Your task to perform on an android device: turn pop-ups on in chrome Image 0: 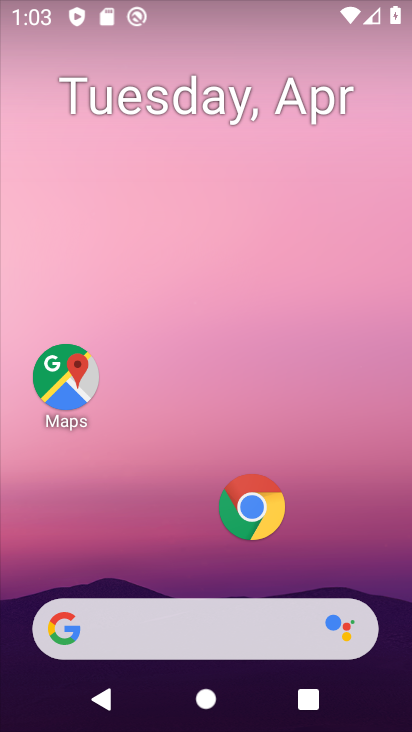
Step 0: click (252, 515)
Your task to perform on an android device: turn pop-ups on in chrome Image 1: 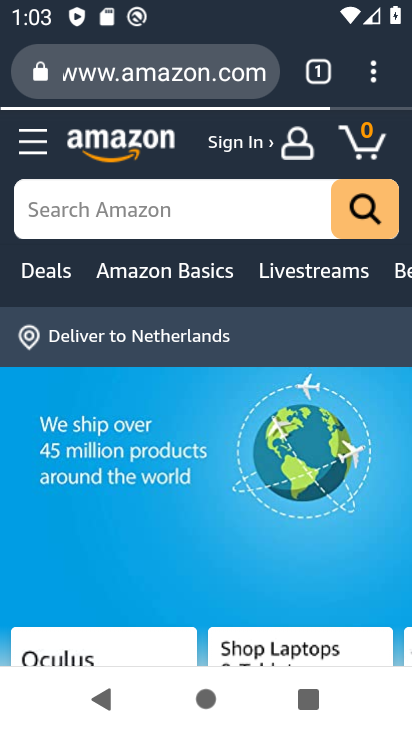
Step 1: click (370, 76)
Your task to perform on an android device: turn pop-ups on in chrome Image 2: 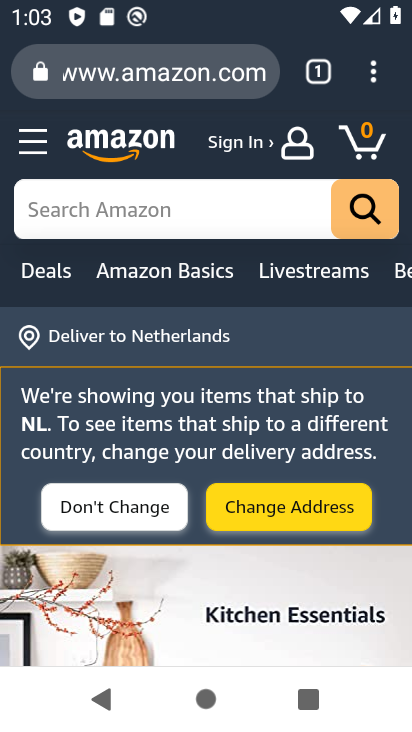
Step 2: click (375, 68)
Your task to perform on an android device: turn pop-ups on in chrome Image 3: 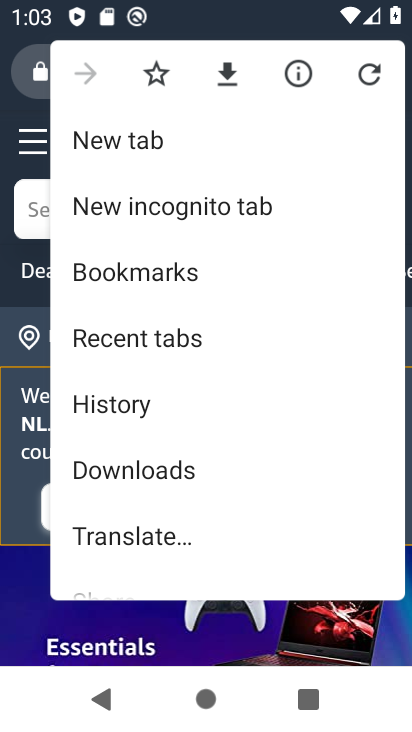
Step 3: drag from (143, 524) to (193, 153)
Your task to perform on an android device: turn pop-ups on in chrome Image 4: 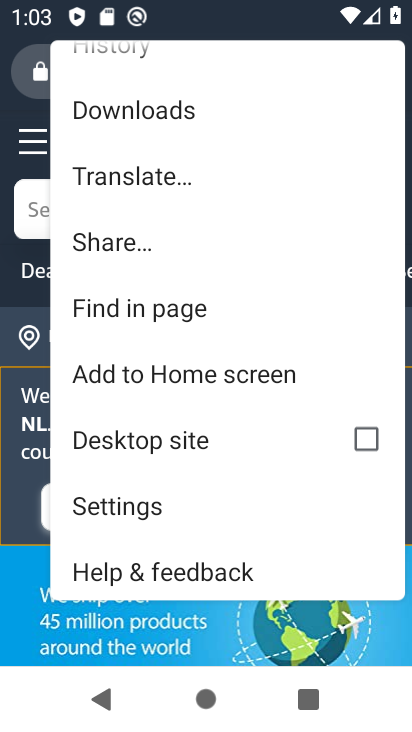
Step 4: click (155, 506)
Your task to perform on an android device: turn pop-ups on in chrome Image 5: 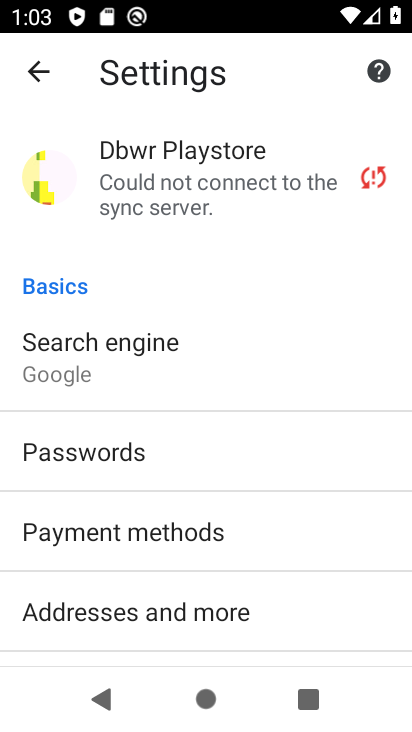
Step 5: drag from (161, 496) to (182, 207)
Your task to perform on an android device: turn pop-ups on in chrome Image 6: 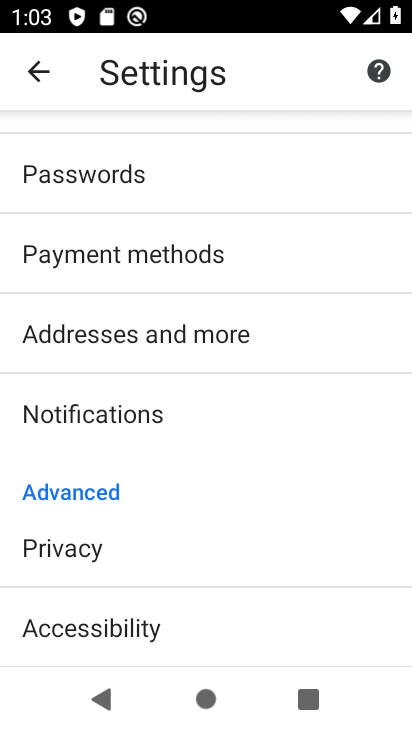
Step 6: drag from (169, 558) to (185, 302)
Your task to perform on an android device: turn pop-ups on in chrome Image 7: 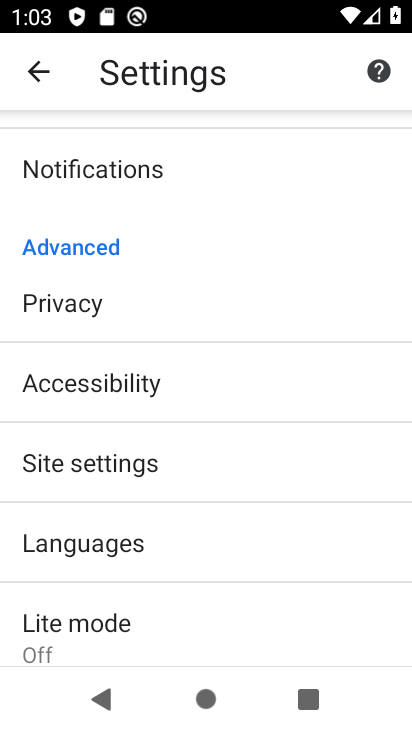
Step 7: click (140, 452)
Your task to perform on an android device: turn pop-ups on in chrome Image 8: 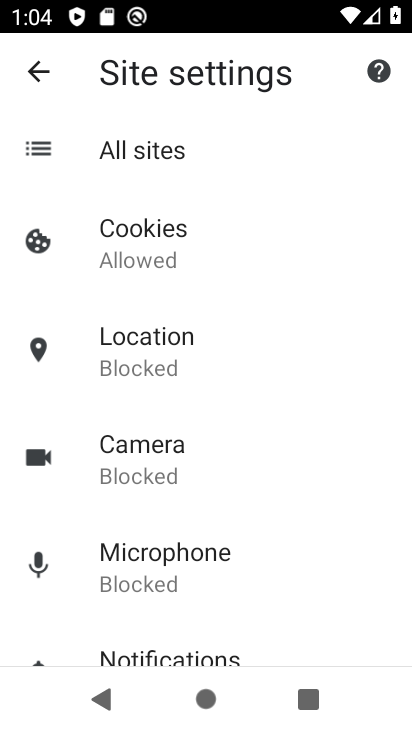
Step 8: drag from (201, 437) to (222, 218)
Your task to perform on an android device: turn pop-ups on in chrome Image 9: 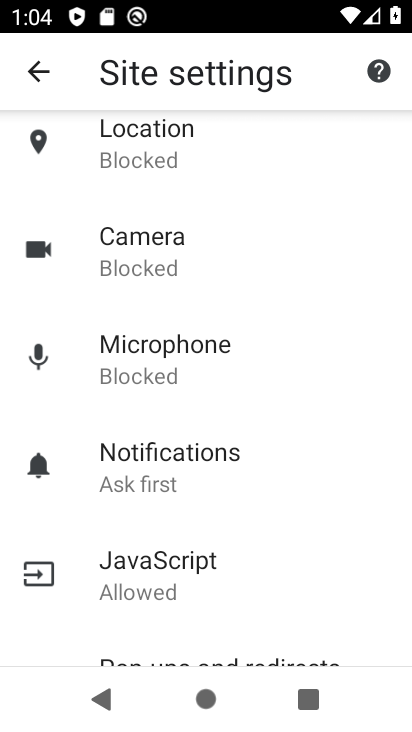
Step 9: drag from (185, 480) to (220, 240)
Your task to perform on an android device: turn pop-ups on in chrome Image 10: 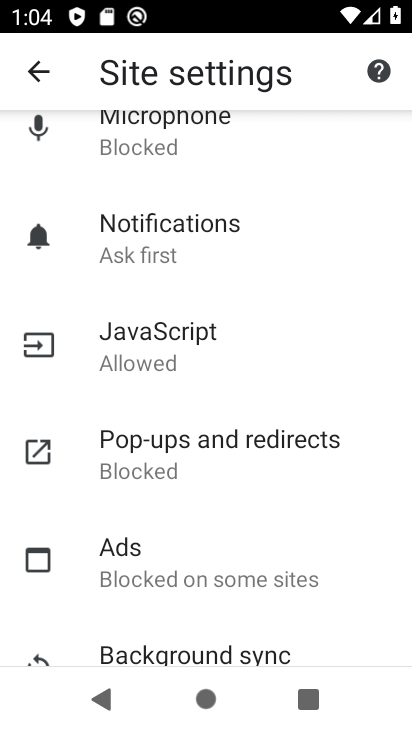
Step 10: click (200, 468)
Your task to perform on an android device: turn pop-ups on in chrome Image 11: 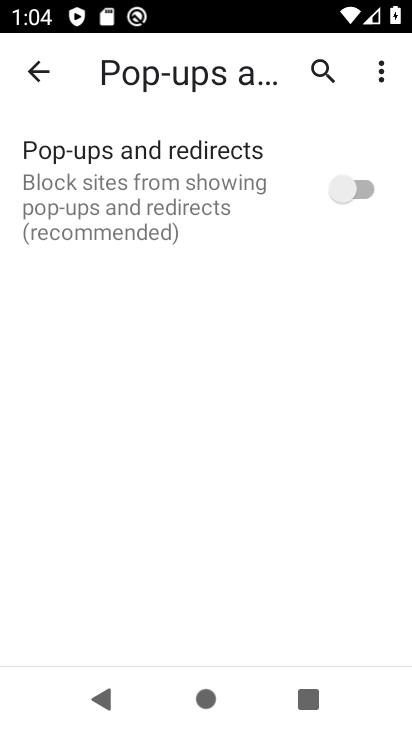
Step 11: click (342, 183)
Your task to perform on an android device: turn pop-ups on in chrome Image 12: 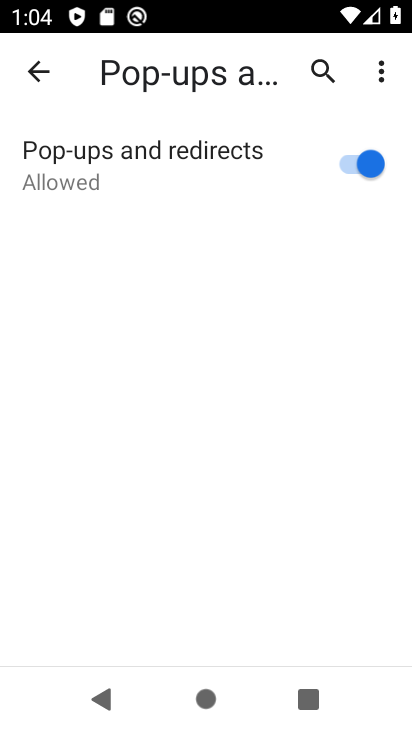
Step 12: task complete